Your task to perform on an android device: Go to network settings Image 0: 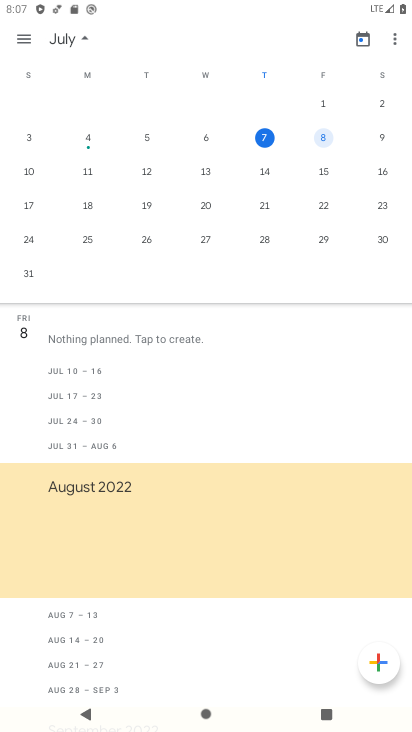
Step 0: press home button
Your task to perform on an android device: Go to network settings Image 1: 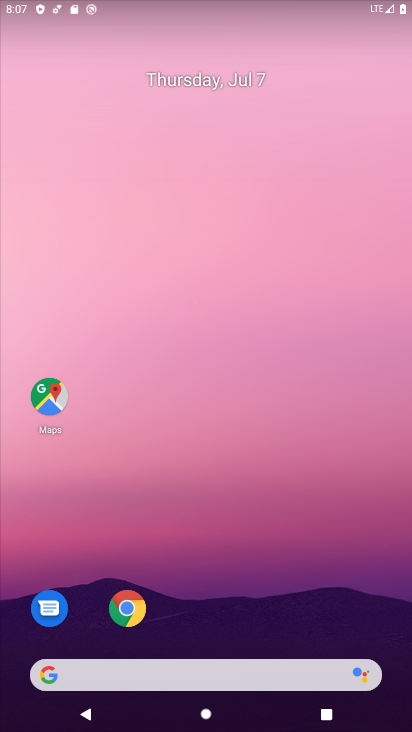
Step 1: drag from (333, 607) to (386, 51)
Your task to perform on an android device: Go to network settings Image 2: 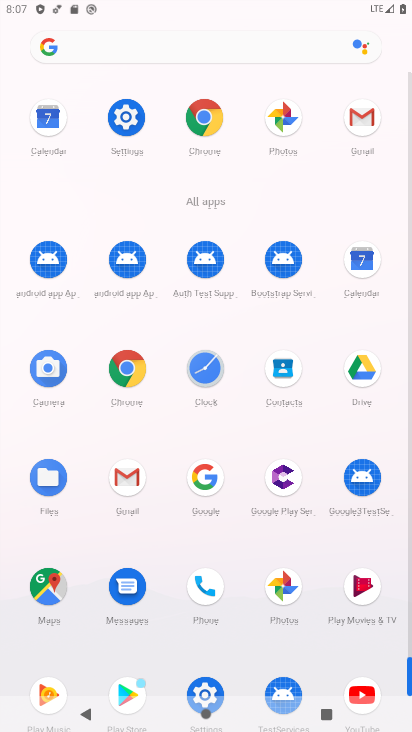
Step 2: click (121, 127)
Your task to perform on an android device: Go to network settings Image 3: 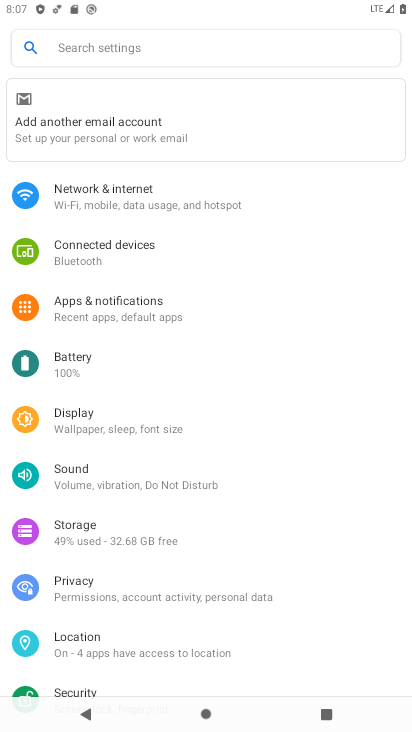
Step 3: click (136, 200)
Your task to perform on an android device: Go to network settings Image 4: 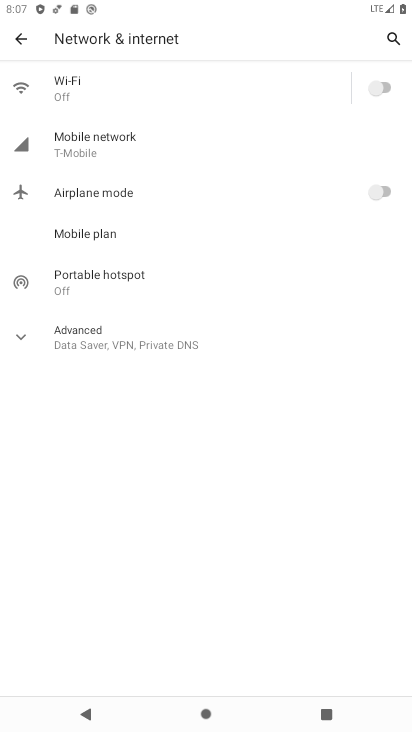
Step 4: task complete